Your task to perform on an android device: Search for sushi restaurants on Maps Image 0: 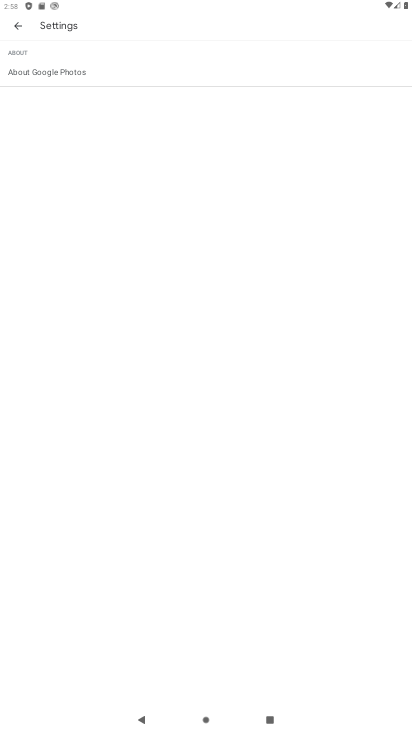
Step 0: press home button
Your task to perform on an android device: Search for sushi restaurants on Maps Image 1: 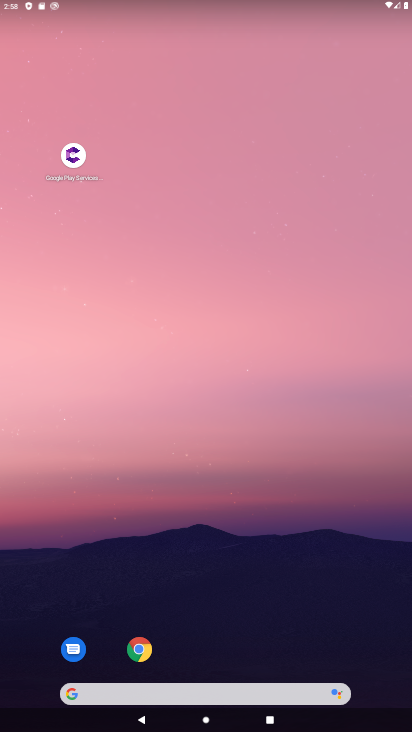
Step 1: drag from (289, 598) to (320, 125)
Your task to perform on an android device: Search for sushi restaurants on Maps Image 2: 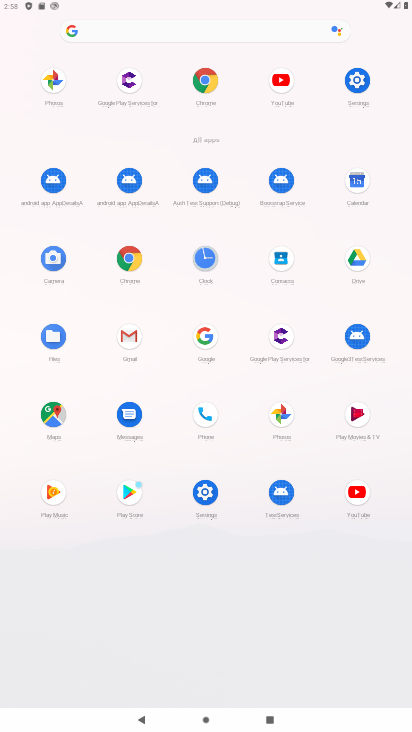
Step 2: click (58, 410)
Your task to perform on an android device: Search for sushi restaurants on Maps Image 3: 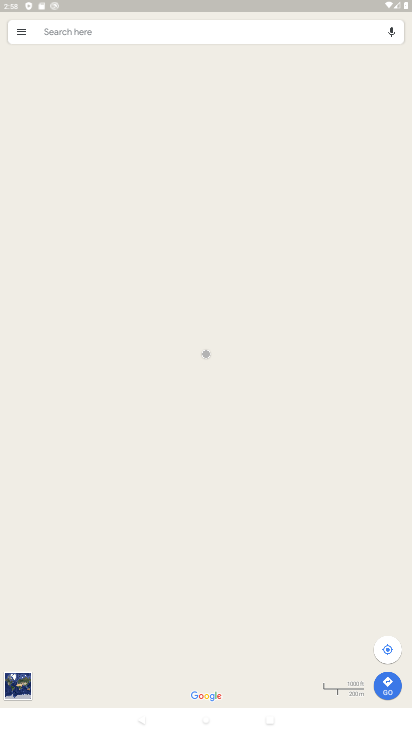
Step 3: click (189, 29)
Your task to perform on an android device: Search for sushi restaurants on Maps Image 4: 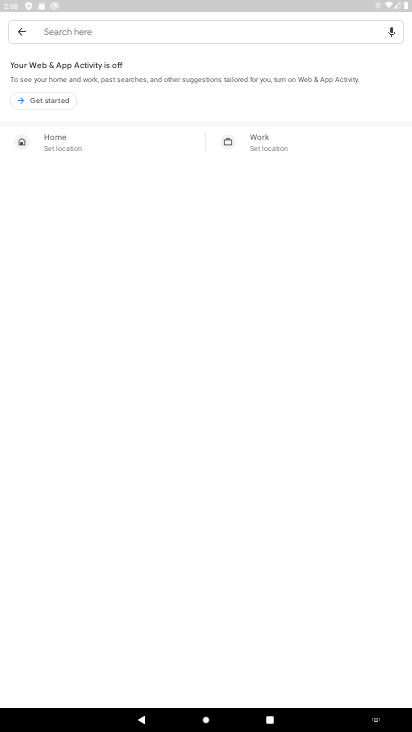
Step 4: type "sushi restaurants"
Your task to perform on an android device: Search for sushi restaurants on Maps Image 5: 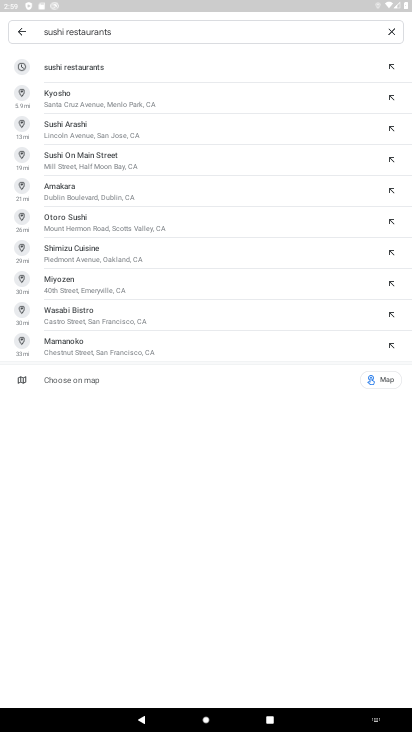
Step 5: press enter
Your task to perform on an android device: Search for sushi restaurants on Maps Image 6: 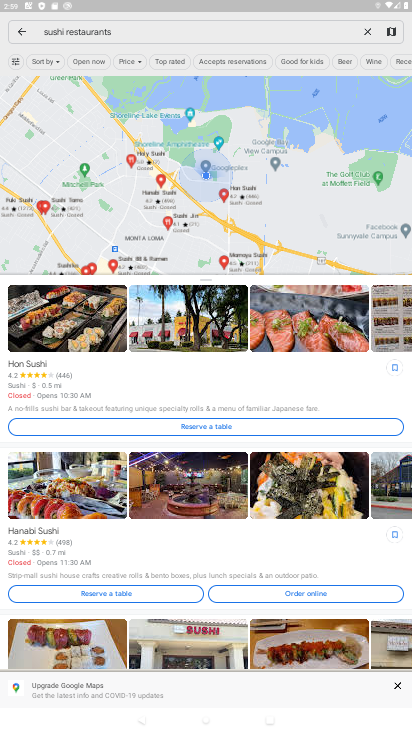
Step 6: task complete